Your task to perform on an android device: change text size in settings app Image 0: 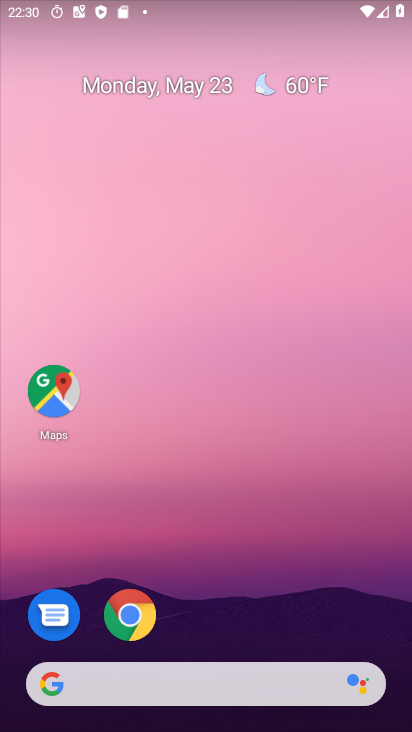
Step 0: drag from (238, 438) to (216, 78)
Your task to perform on an android device: change text size in settings app Image 1: 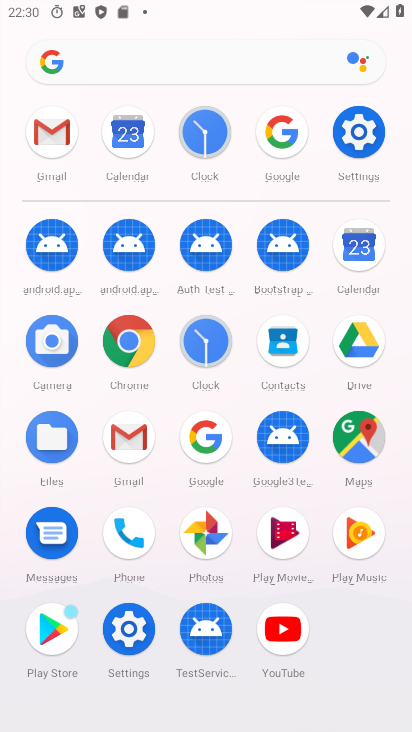
Step 1: click (356, 135)
Your task to perform on an android device: change text size in settings app Image 2: 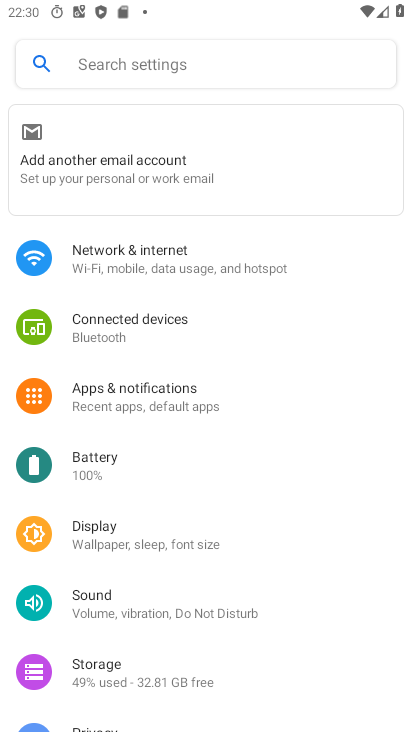
Step 2: click (143, 544)
Your task to perform on an android device: change text size in settings app Image 3: 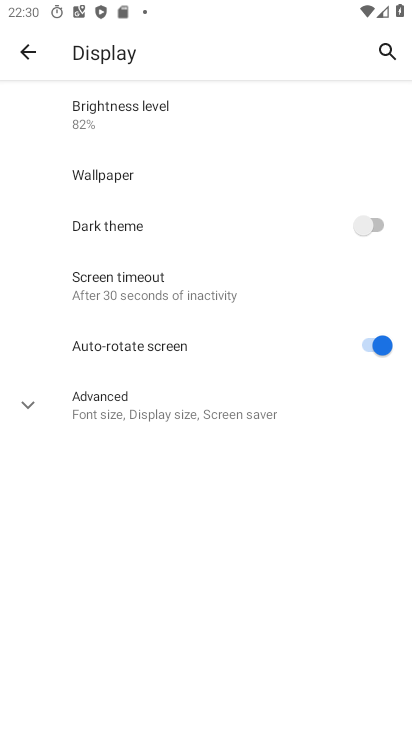
Step 3: click (96, 407)
Your task to perform on an android device: change text size in settings app Image 4: 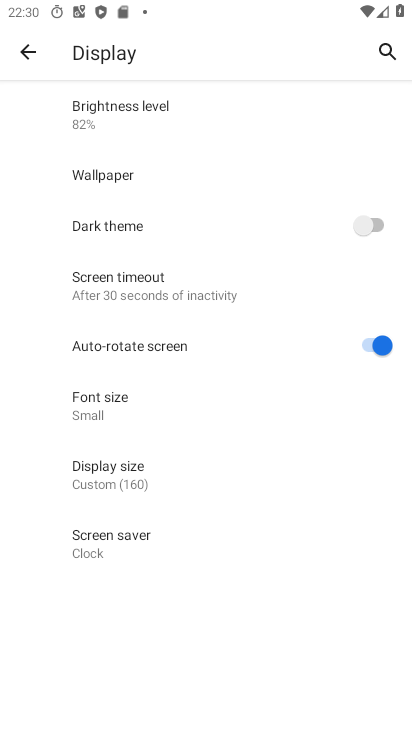
Step 4: click (106, 411)
Your task to perform on an android device: change text size in settings app Image 5: 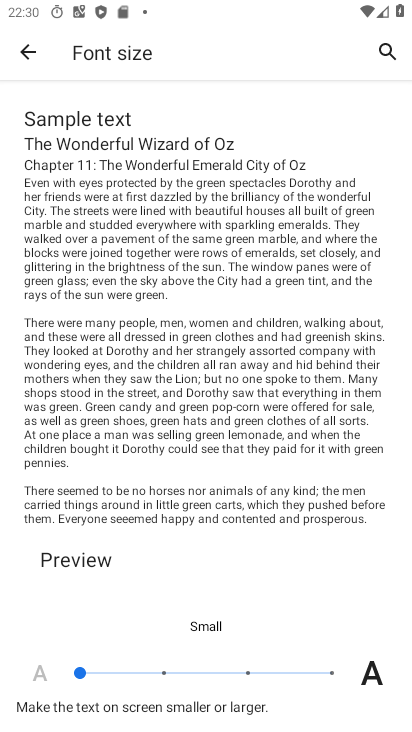
Step 5: task complete